Your task to perform on an android device: turn off data saver in the chrome app Image 0: 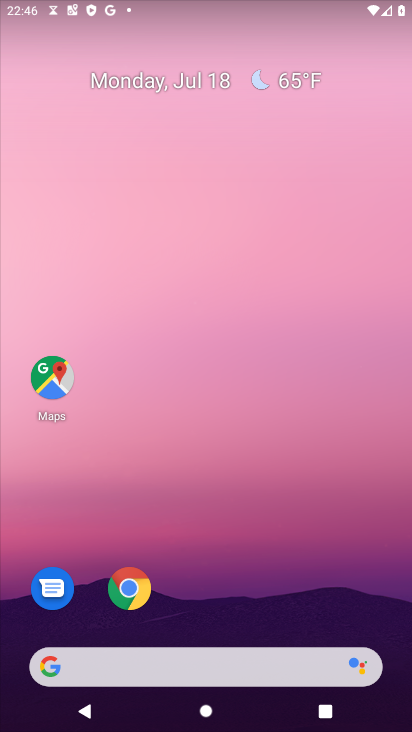
Step 0: click (127, 587)
Your task to perform on an android device: turn off data saver in the chrome app Image 1: 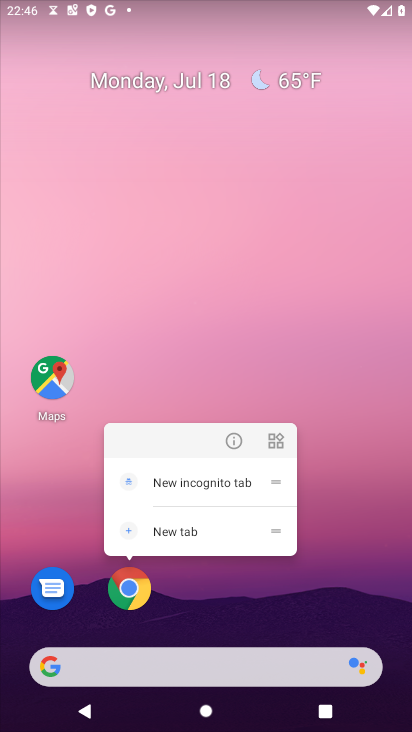
Step 1: click (127, 587)
Your task to perform on an android device: turn off data saver in the chrome app Image 2: 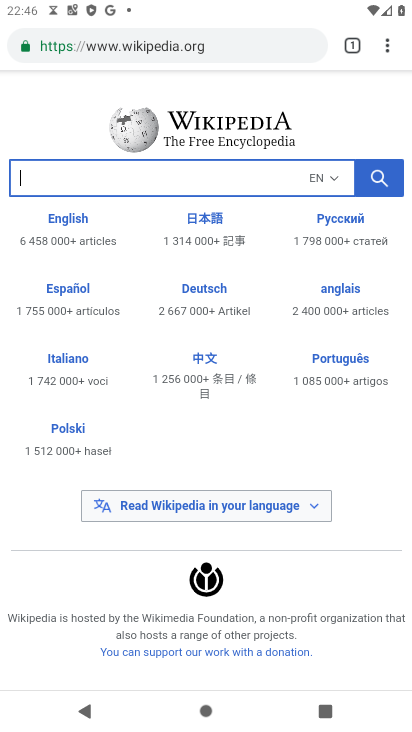
Step 2: click (388, 47)
Your task to perform on an android device: turn off data saver in the chrome app Image 3: 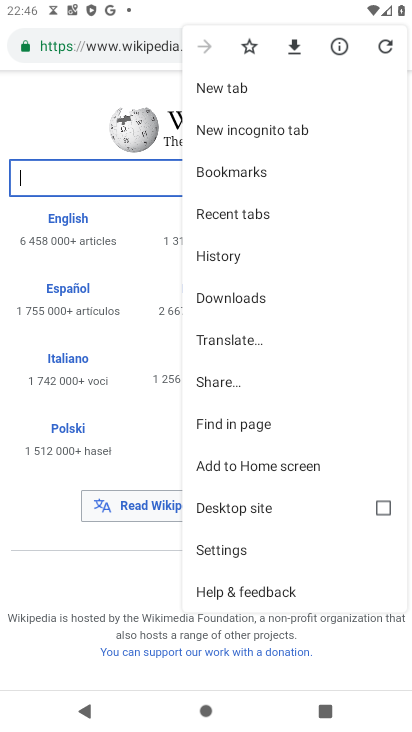
Step 3: click (234, 550)
Your task to perform on an android device: turn off data saver in the chrome app Image 4: 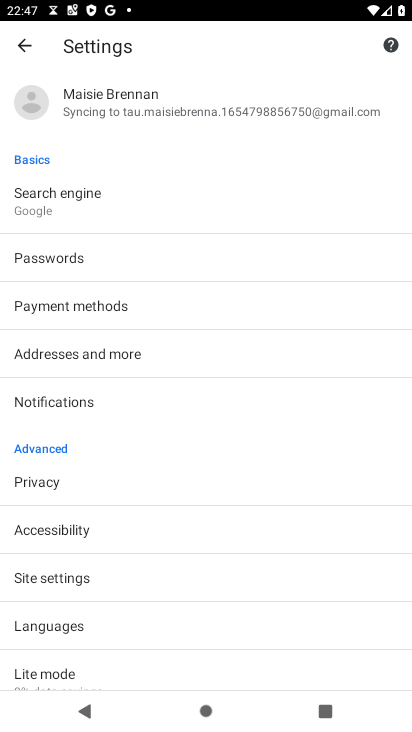
Step 4: drag from (108, 542) to (150, 422)
Your task to perform on an android device: turn off data saver in the chrome app Image 5: 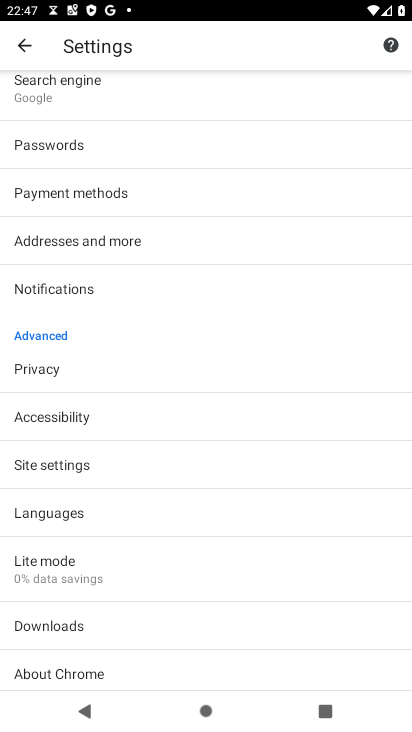
Step 5: click (66, 563)
Your task to perform on an android device: turn off data saver in the chrome app Image 6: 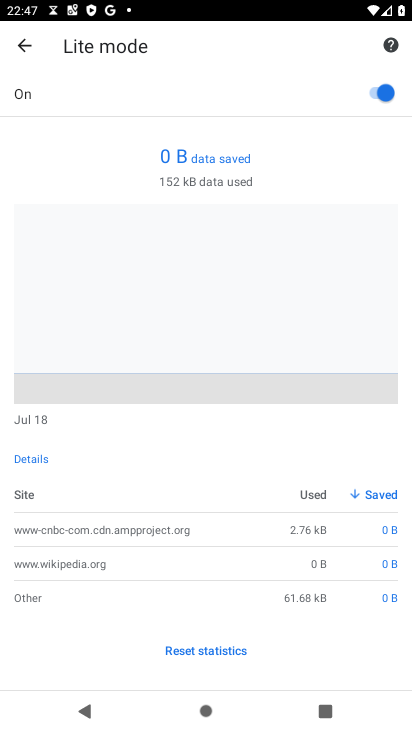
Step 6: click (369, 92)
Your task to perform on an android device: turn off data saver in the chrome app Image 7: 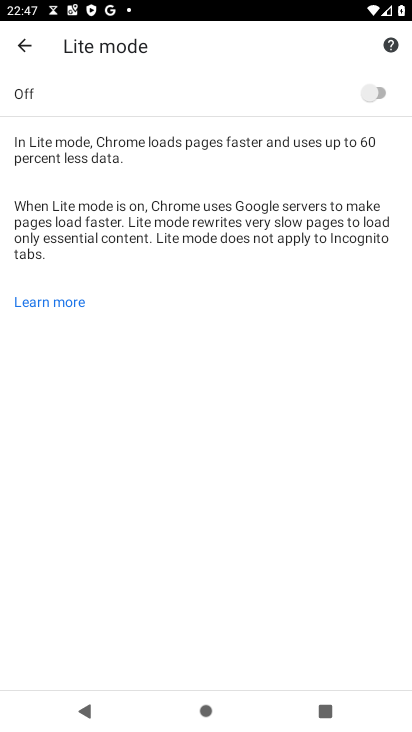
Step 7: task complete